Your task to perform on an android device: find snoozed emails in the gmail app Image 0: 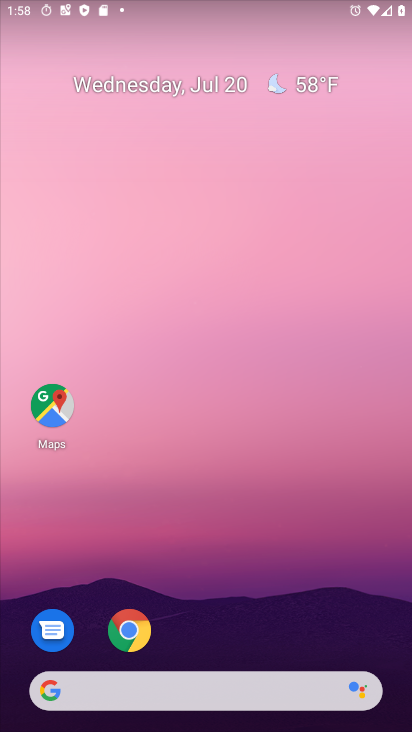
Step 0: drag from (135, 692) to (346, 100)
Your task to perform on an android device: find snoozed emails in the gmail app Image 1: 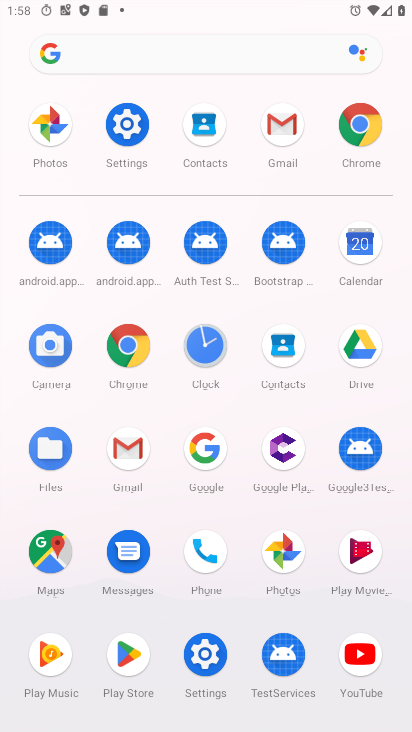
Step 1: click (278, 127)
Your task to perform on an android device: find snoozed emails in the gmail app Image 2: 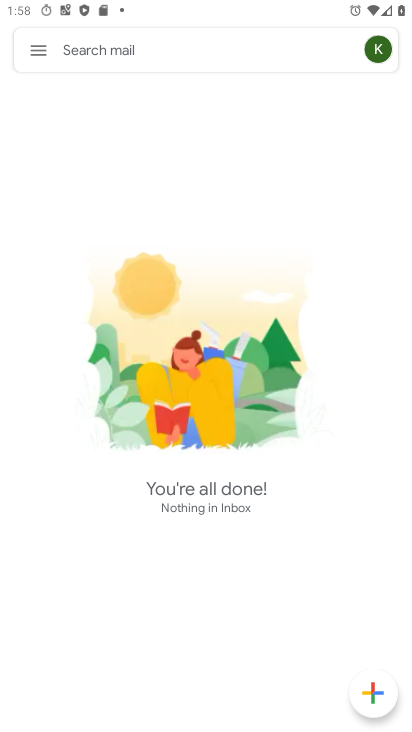
Step 2: click (41, 45)
Your task to perform on an android device: find snoozed emails in the gmail app Image 3: 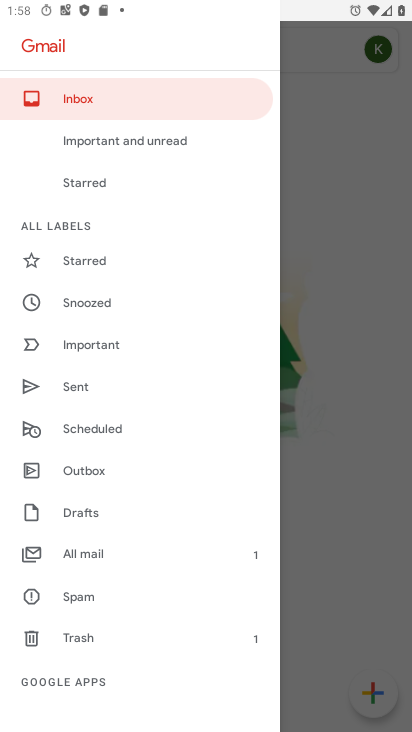
Step 3: click (80, 300)
Your task to perform on an android device: find snoozed emails in the gmail app Image 4: 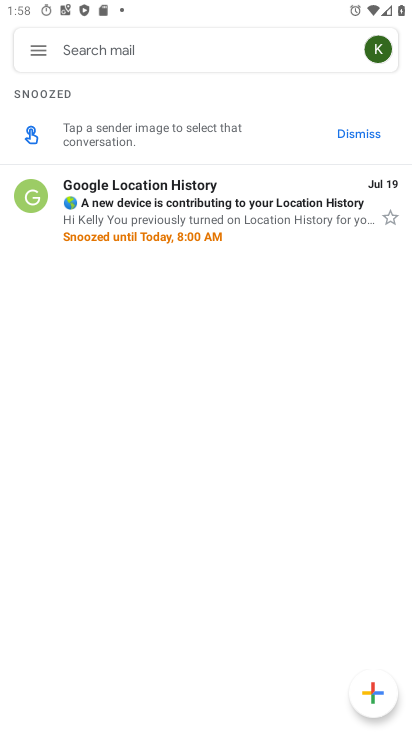
Step 4: task complete